Your task to perform on an android device: Go to Yahoo.com Image 0: 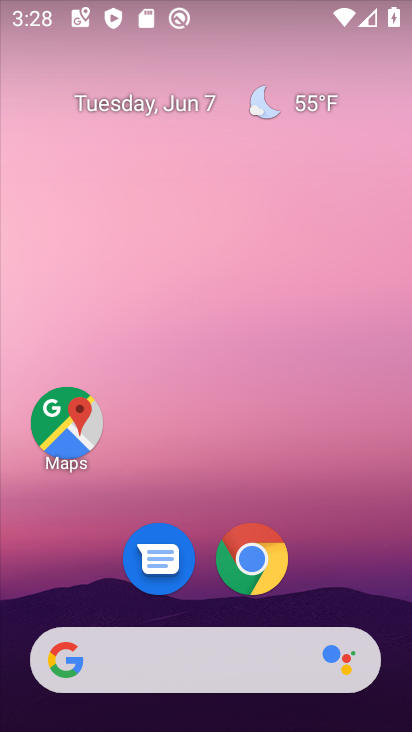
Step 0: click (253, 559)
Your task to perform on an android device: Go to Yahoo.com Image 1: 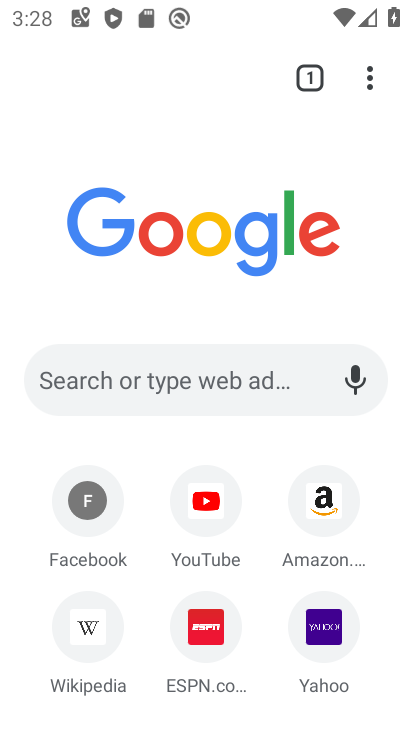
Step 1: click (312, 640)
Your task to perform on an android device: Go to Yahoo.com Image 2: 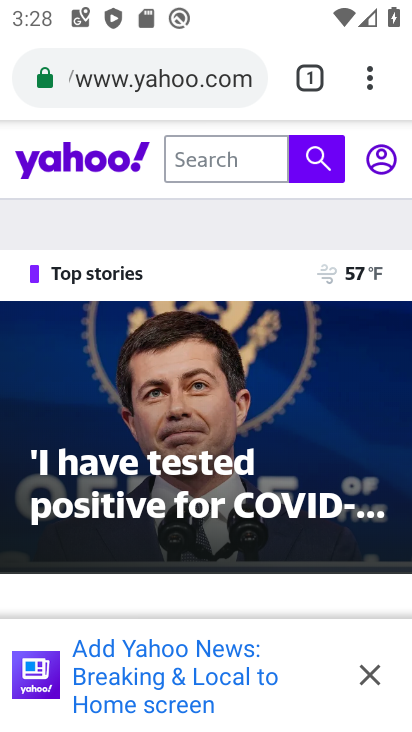
Step 2: task complete